Your task to perform on an android device: Go to network settings Image 0: 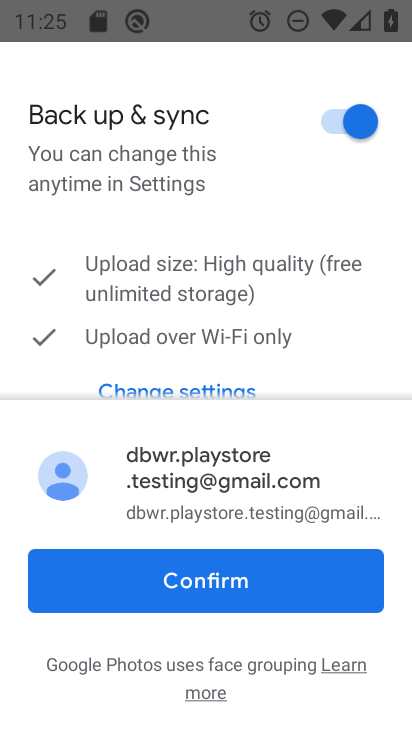
Step 0: press home button
Your task to perform on an android device: Go to network settings Image 1: 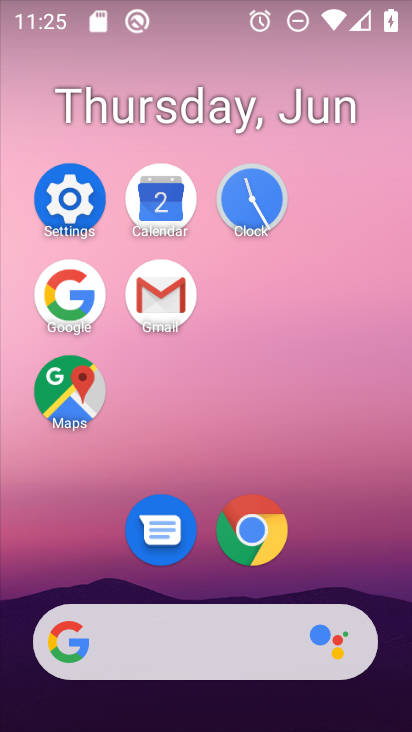
Step 1: click (90, 187)
Your task to perform on an android device: Go to network settings Image 2: 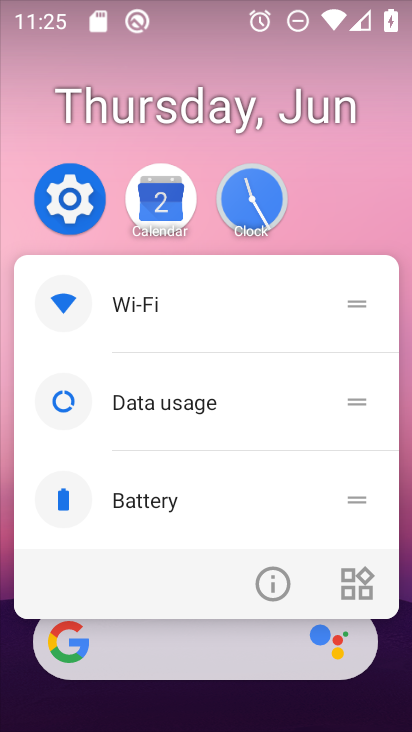
Step 2: click (94, 198)
Your task to perform on an android device: Go to network settings Image 3: 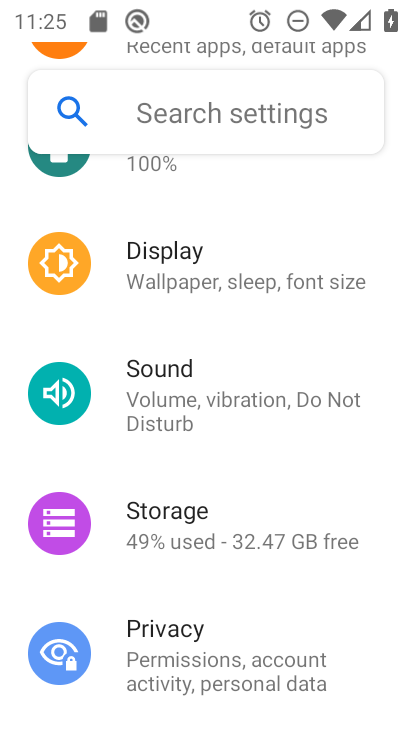
Step 3: drag from (330, 226) to (312, 644)
Your task to perform on an android device: Go to network settings Image 4: 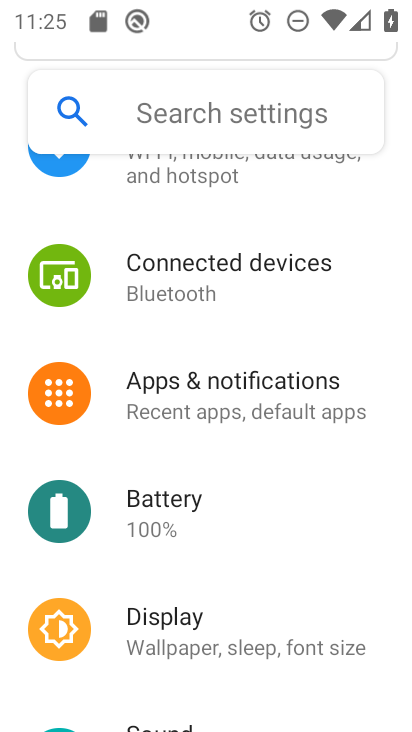
Step 4: drag from (236, 225) to (237, 567)
Your task to perform on an android device: Go to network settings Image 5: 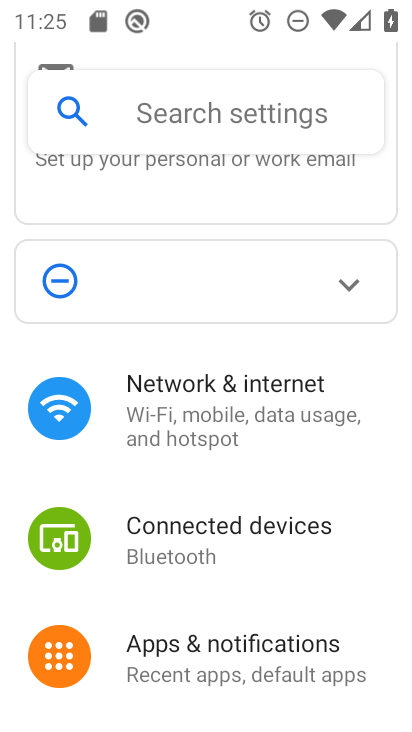
Step 5: click (231, 427)
Your task to perform on an android device: Go to network settings Image 6: 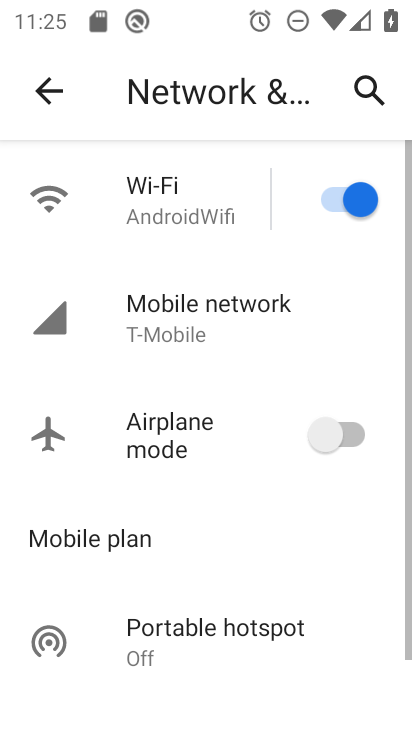
Step 6: task complete